Your task to perform on an android device: Open battery settings Image 0: 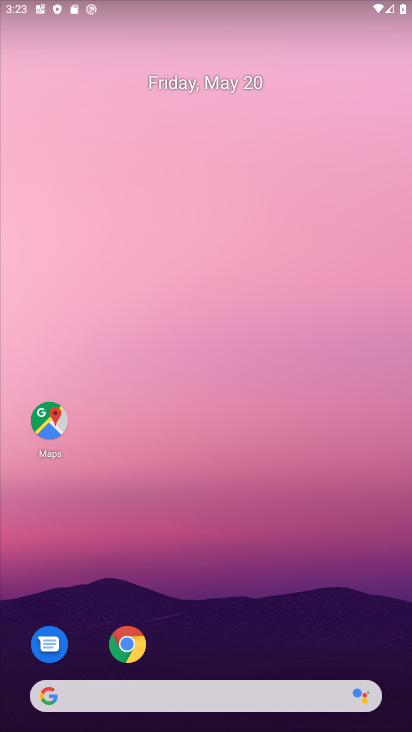
Step 0: drag from (266, 630) to (304, 126)
Your task to perform on an android device: Open battery settings Image 1: 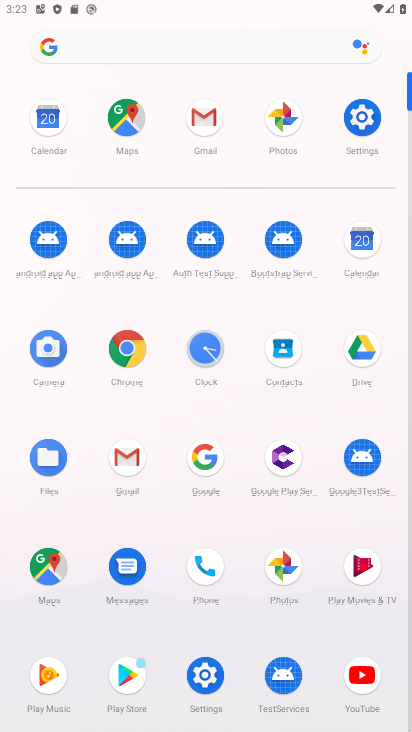
Step 1: click (375, 144)
Your task to perform on an android device: Open battery settings Image 2: 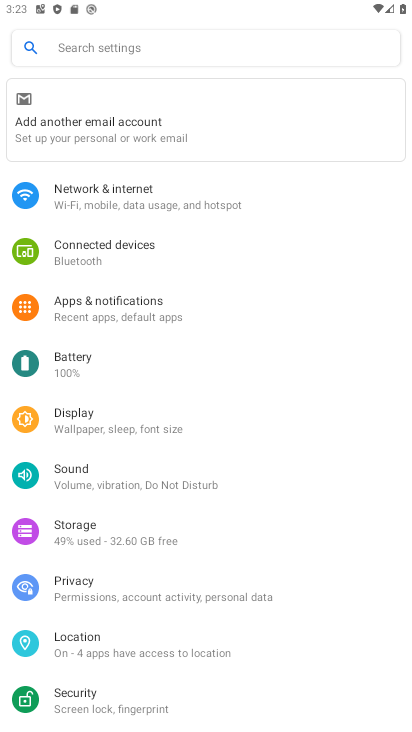
Step 2: click (176, 367)
Your task to perform on an android device: Open battery settings Image 3: 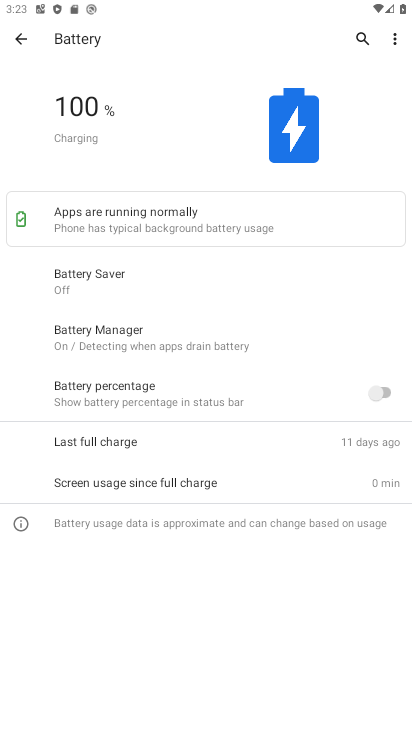
Step 3: task complete